Your task to perform on an android device: turn off airplane mode Image 0: 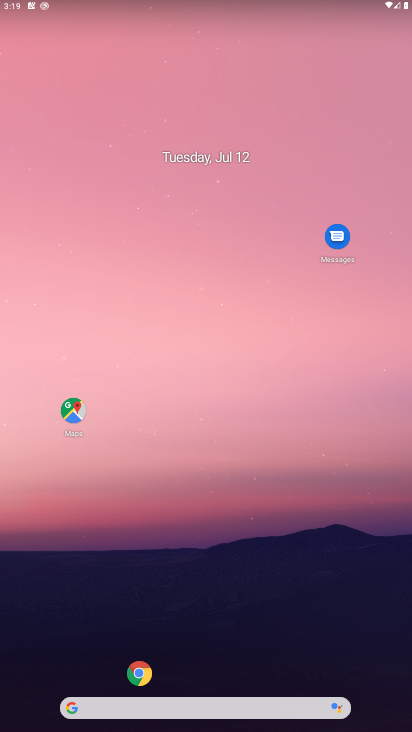
Step 0: drag from (28, 684) to (251, 255)
Your task to perform on an android device: turn off airplane mode Image 1: 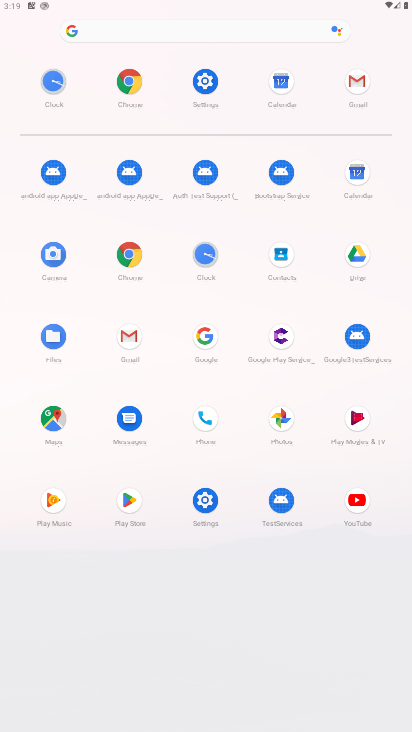
Step 1: click (192, 507)
Your task to perform on an android device: turn off airplane mode Image 2: 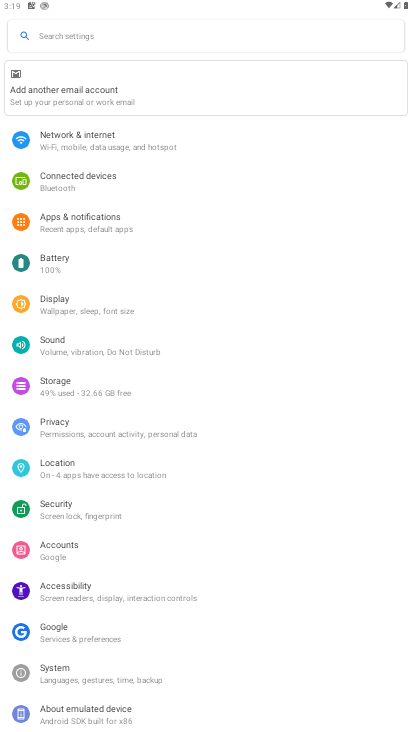
Step 2: click (66, 142)
Your task to perform on an android device: turn off airplane mode Image 3: 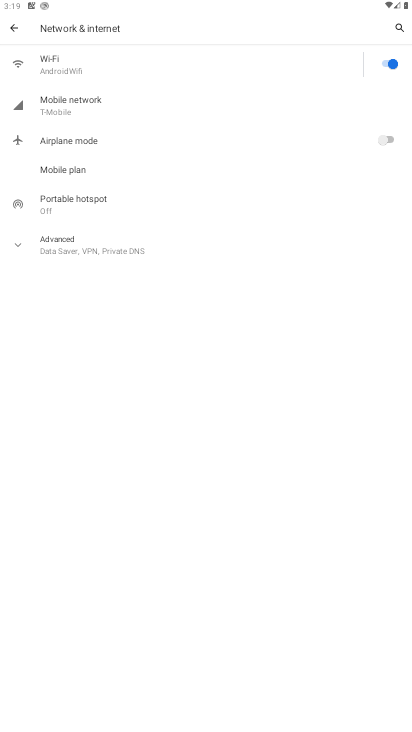
Step 3: click (380, 140)
Your task to perform on an android device: turn off airplane mode Image 4: 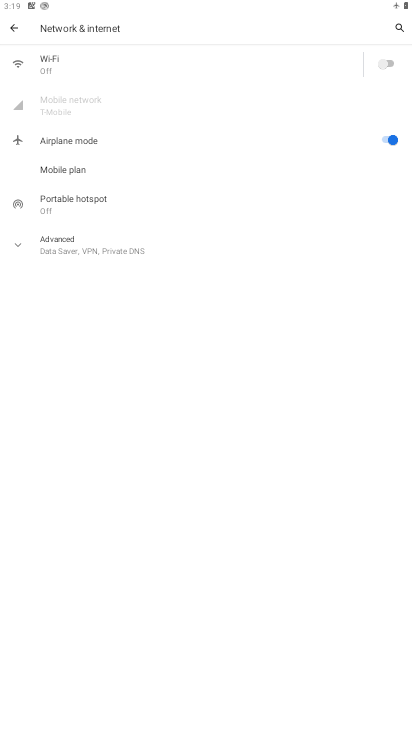
Step 4: click (386, 138)
Your task to perform on an android device: turn off airplane mode Image 5: 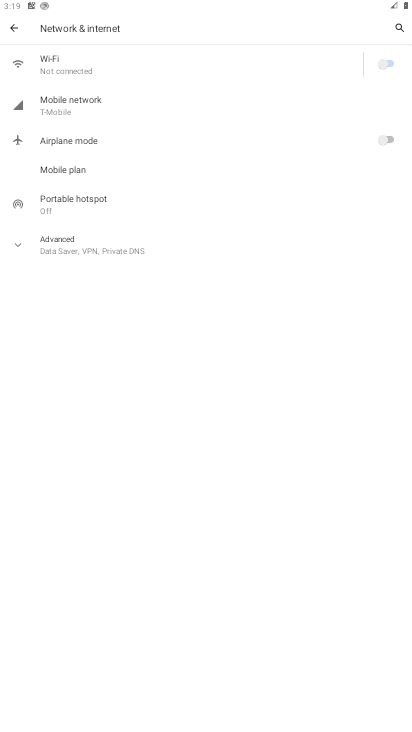
Step 5: click (390, 137)
Your task to perform on an android device: turn off airplane mode Image 6: 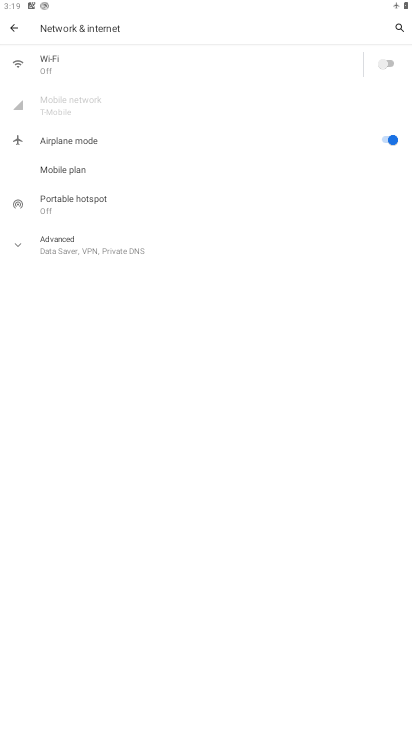
Step 6: task complete